Your task to perform on an android device: toggle translation in the chrome app Image 0: 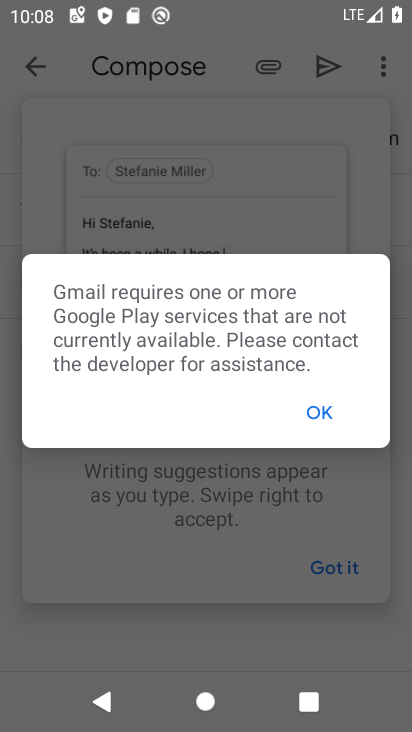
Step 0: press home button
Your task to perform on an android device: toggle translation in the chrome app Image 1: 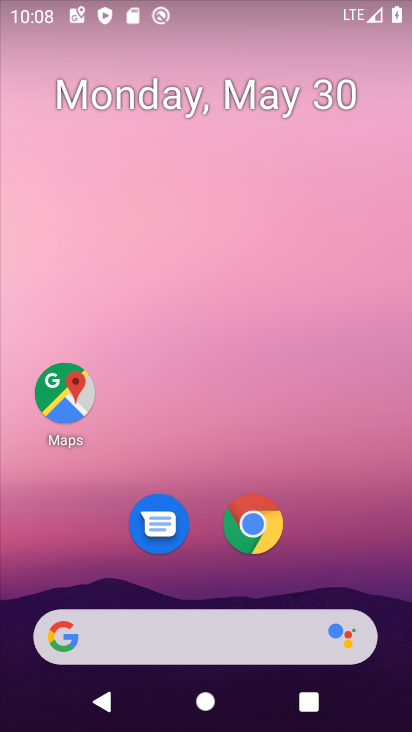
Step 1: click (253, 544)
Your task to perform on an android device: toggle translation in the chrome app Image 2: 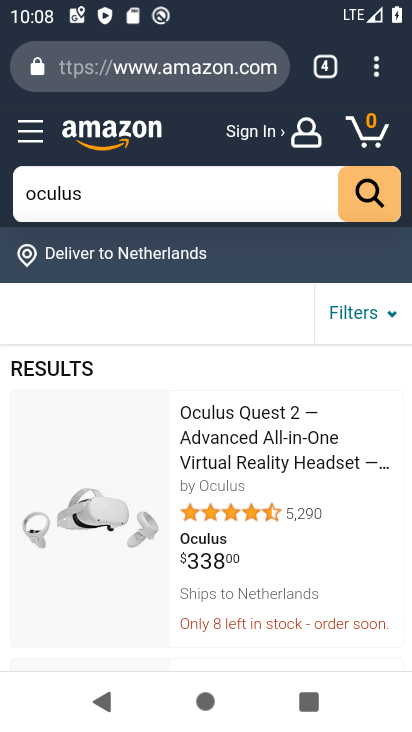
Step 2: click (377, 62)
Your task to perform on an android device: toggle translation in the chrome app Image 3: 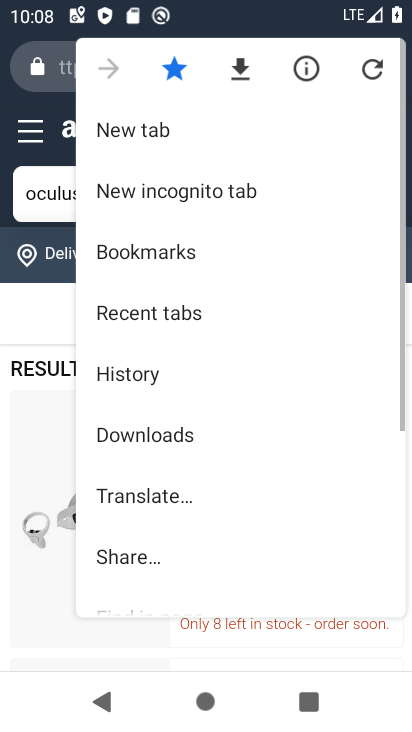
Step 3: drag from (264, 507) to (288, 118)
Your task to perform on an android device: toggle translation in the chrome app Image 4: 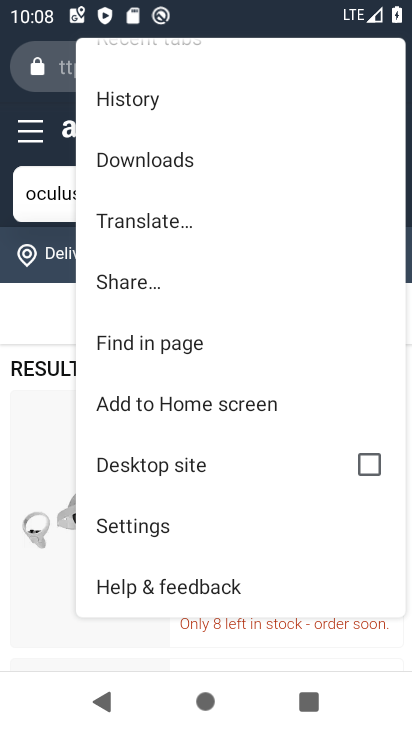
Step 4: click (176, 516)
Your task to perform on an android device: toggle translation in the chrome app Image 5: 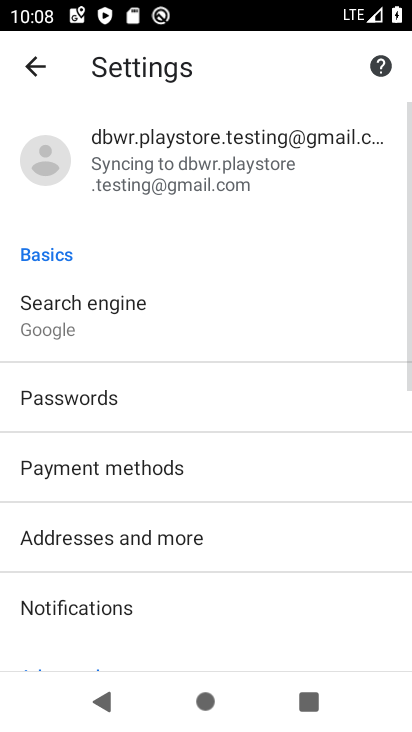
Step 5: drag from (279, 487) to (265, 64)
Your task to perform on an android device: toggle translation in the chrome app Image 6: 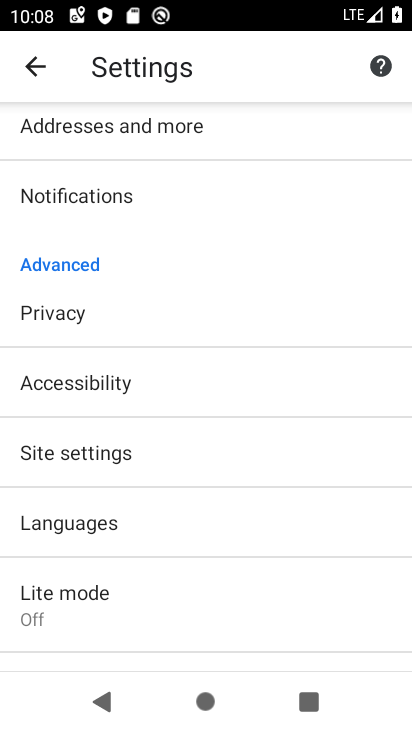
Step 6: click (213, 527)
Your task to perform on an android device: toggle translation in the chrome app Image 7: 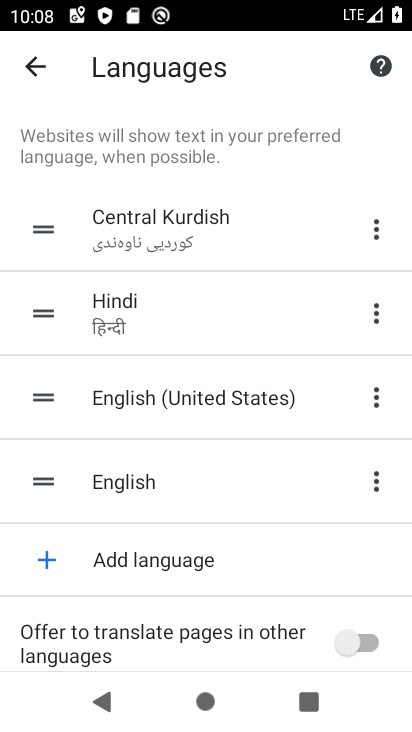
Step 7: click (366, 635)
Your task to perform on an android device: toggle translation in the chrome app Image 8: 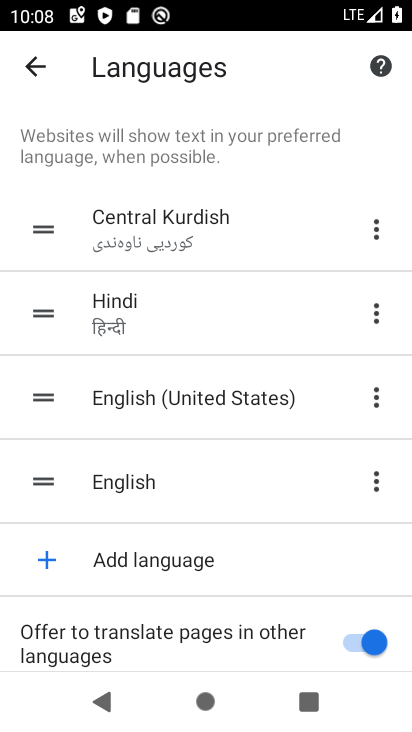
Step 8: task complete